Your task to perform on an android device: change keyboard looks Image 0: 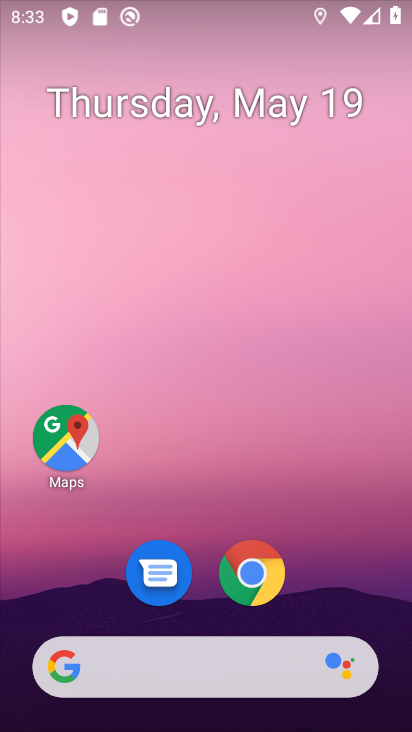
Step 0: drag from (393, 618) to (333, 0)
Your task to perform on an android device: change keyboard looks Image 1: 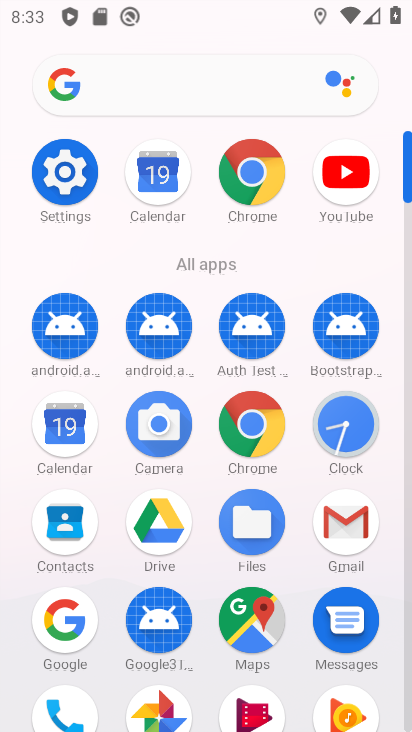
Step 1: click (74, 178)
Your task to perform on an android device: change keyboard looks Image 2: 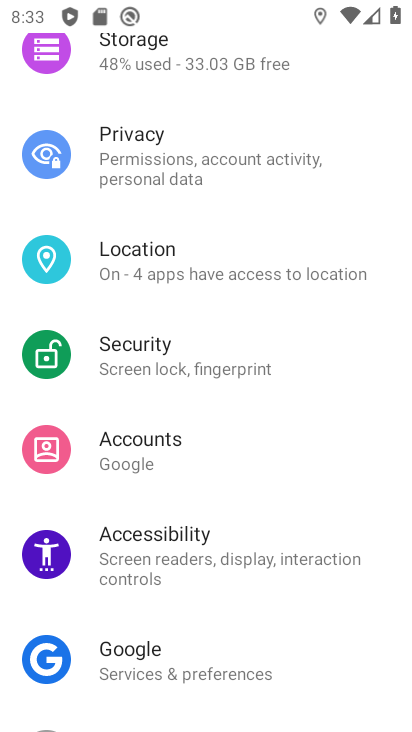
Step 2: drag from (340, 555) to (293, 71)
Your task to perform on an android device: change keyboard looks Image 3: 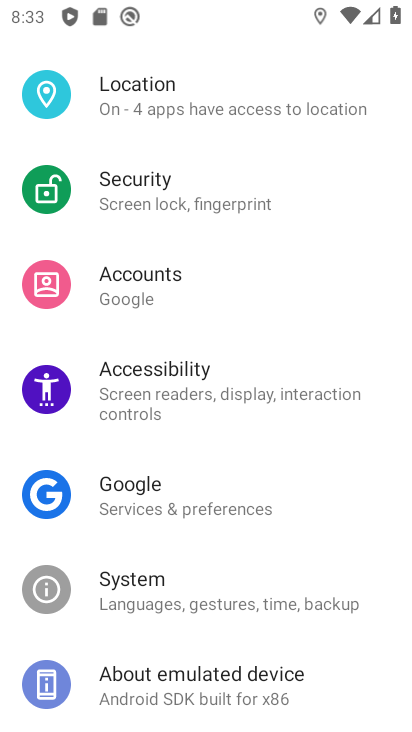
Step 3: click (138, 588)
Your task to perform on an android device: change keyboard looks Image 4: 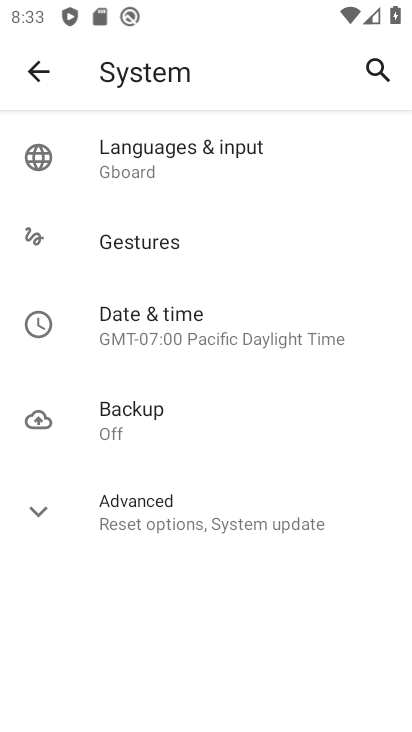
Step 4: click (113, 175)
Your task to perform on an android device: change keyboard looks Image 5: 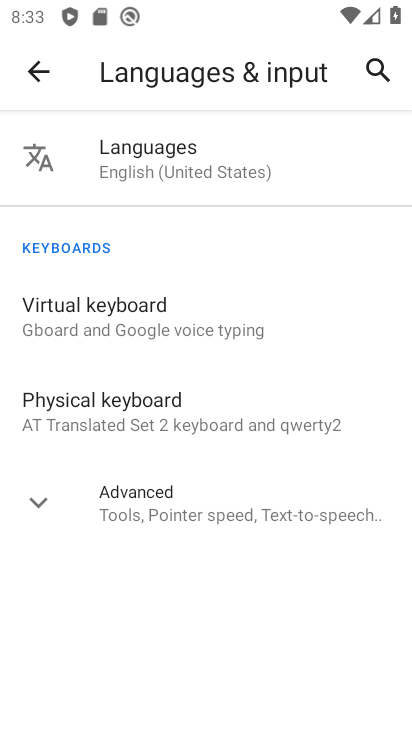
Step 5: click (95, 332)
Your task to perform on an android device: change keyboard looks Image 6: 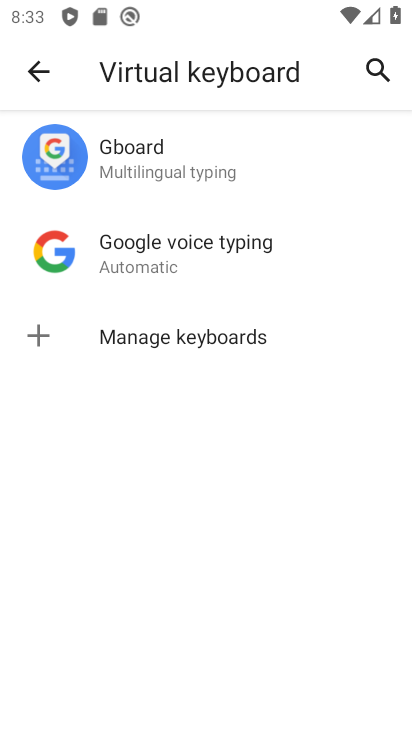
Step 6: click (119, 164)
Your task to perform on an android device: change keyboard looks Image 7: 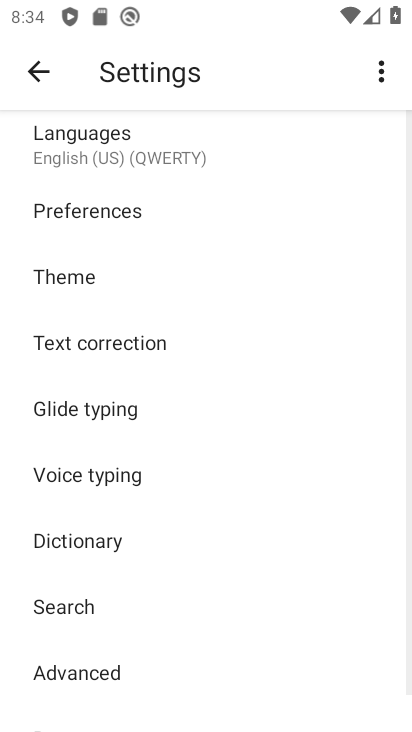
Step 7: click (72, 290)
Your task to perform on an android device: change keyboard looks Image 8: 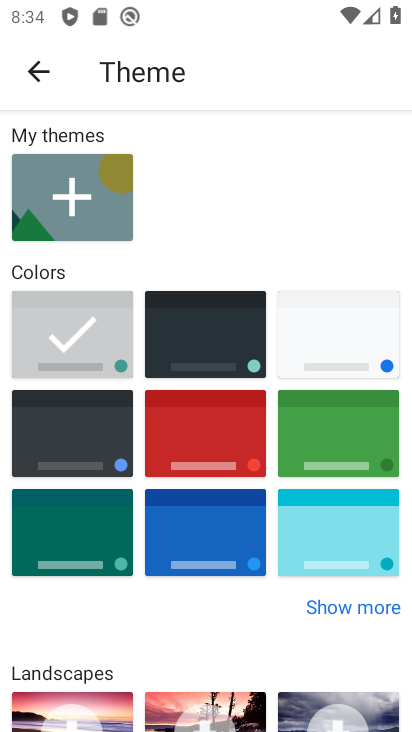
Step 8: click (296, 518)
Your task to perform on an android device: change keyboard looks Image 9: 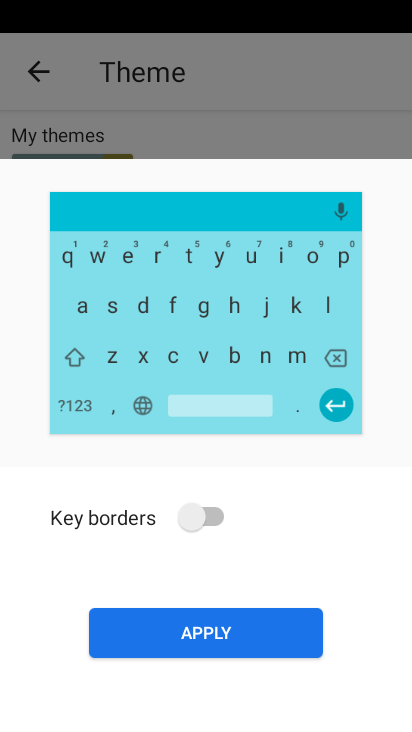
Step 9: click (197, 511)
Your task to perform on an android device: change keyboard looks Image 10: 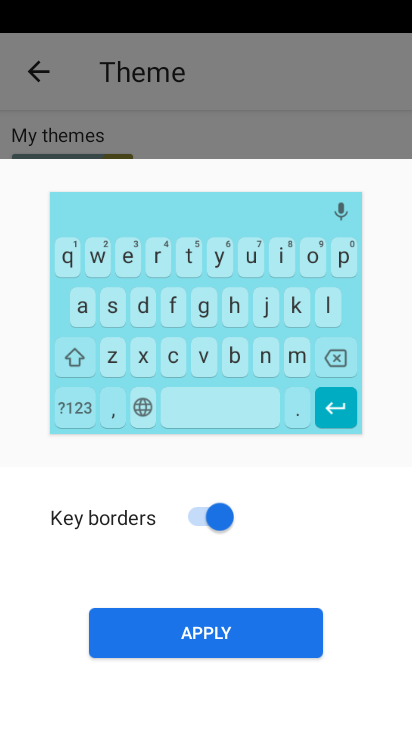
Step 10: click (185, 640)
Your task to perform on an android device: change keyboard looks Image 11: 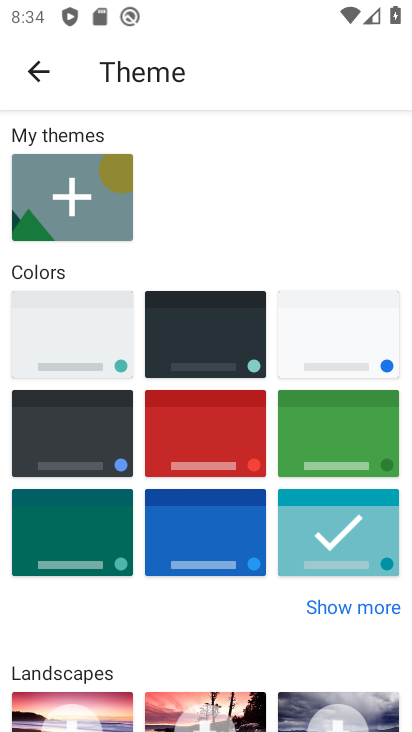
Step 11: task complete